Your task to perform on an android device: Go to display settings Image 0: 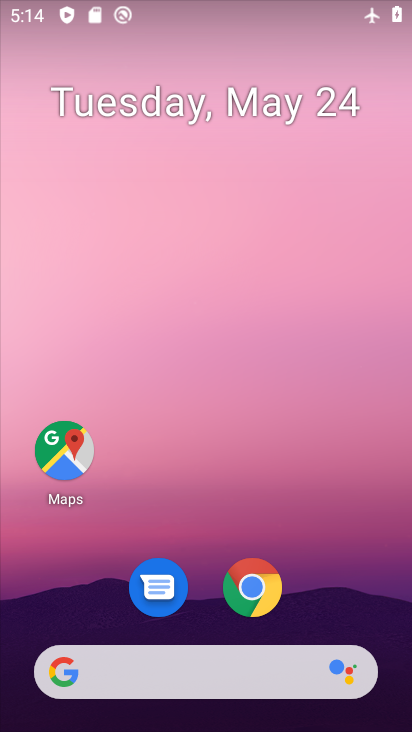
Step 0: drag from (334, 542) to (161, 11)
Your task to perform on an android device: Go to display settings Image 1: 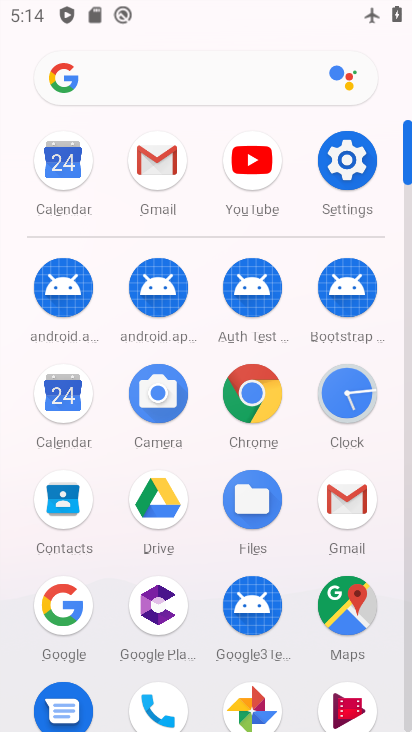
Step 1: click (382, 151)
Your task to perform on an android device: Go to display settings Image 2: 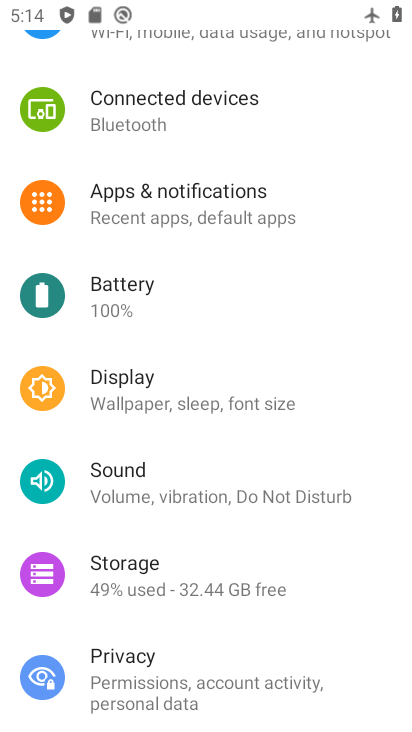
Step 2: click (218, 399)
Your task to perform on an android device: Go to display settings Image 3: 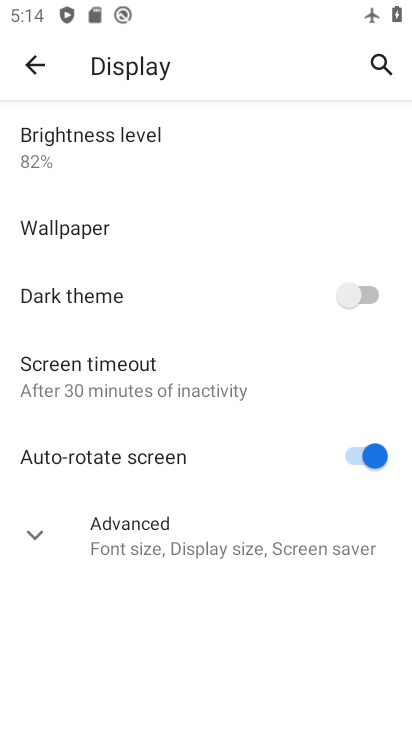
Step 3: task complete